Your task to perform on an android device: Open Google Chrome and click the shortcut for Amazon.com Image 0: 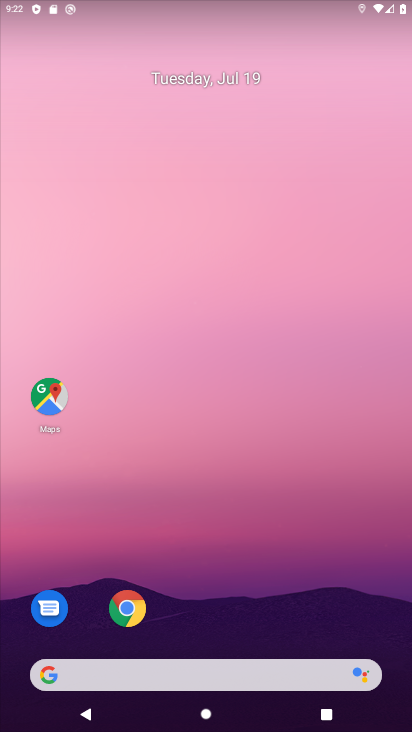
Step 0: drag from (238, 595) to (160, 46)
Your task to perform on an android device: Open Google Chrome and click the shortcut for Amazon.com Image 1: 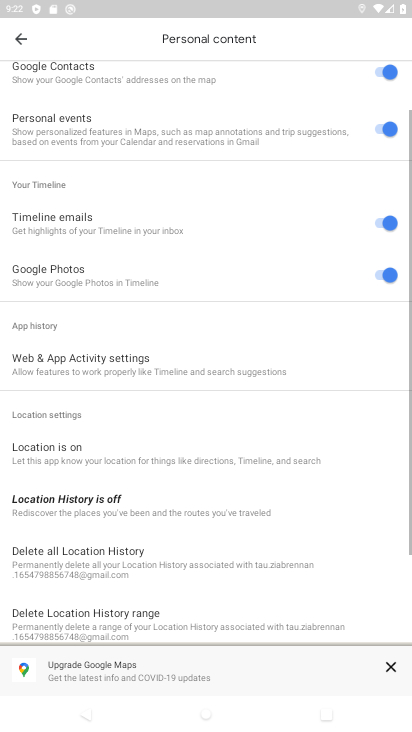
Step 1: press home button
Your task to perform on an android device: Open Google Chrome and click the shortcut for Amazon.com Image 2: 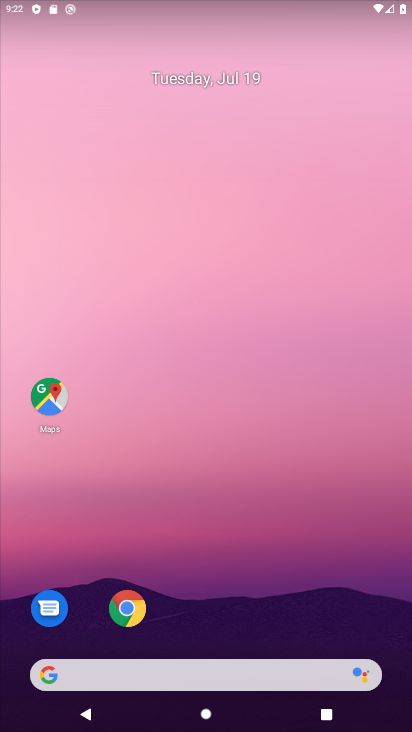
Step 2: click (128, 614)
Your task to perform on an android device: Open Google Chrome and click the shortcut for Amazon.com Image 3: 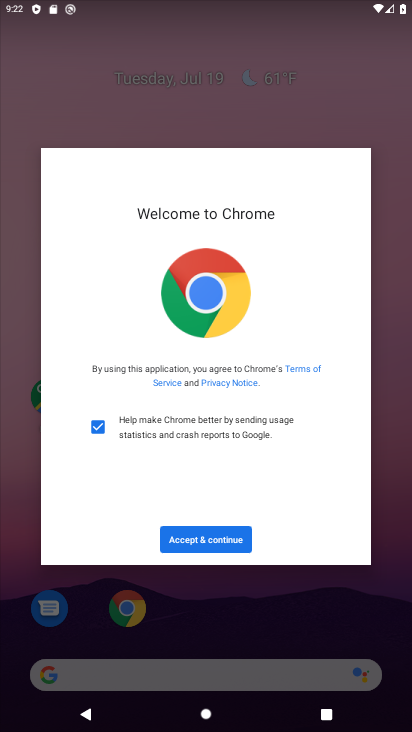
Step 3: click (197, 536)
Your task to perform on an android device: Open Google Chrome and click the shortcut for Amazon.com Image 4: 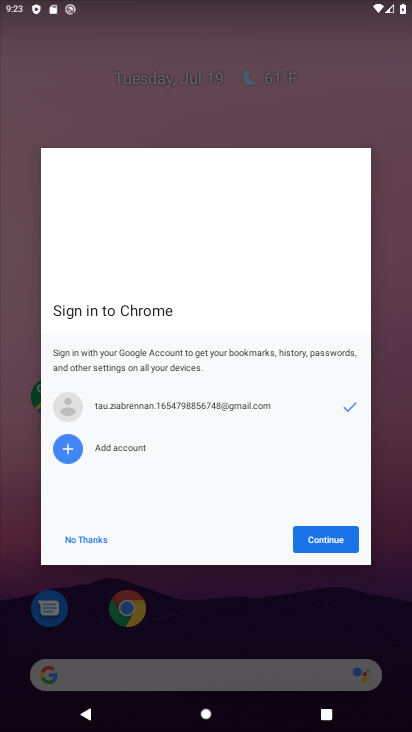
Step 4: click (312, 540)
Your task to perform on an android device: Open Google Chrome and click the shortcut for Amazon.com Image 5: 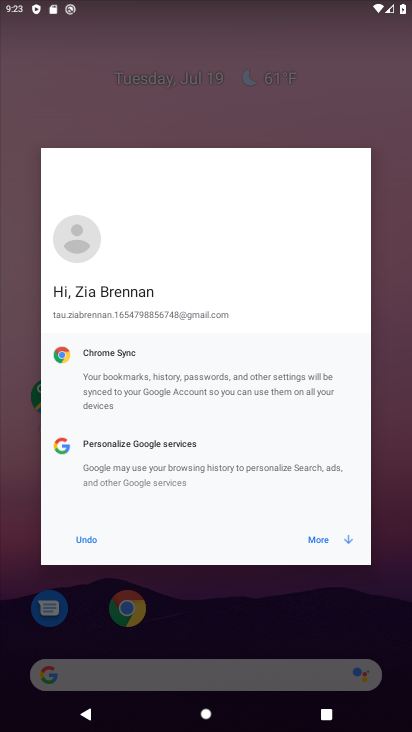
Step 5: click (348, 540)
Your task to perform on an android device: Open Google Chrome and click the shortcut for Amazon.com Image 6: 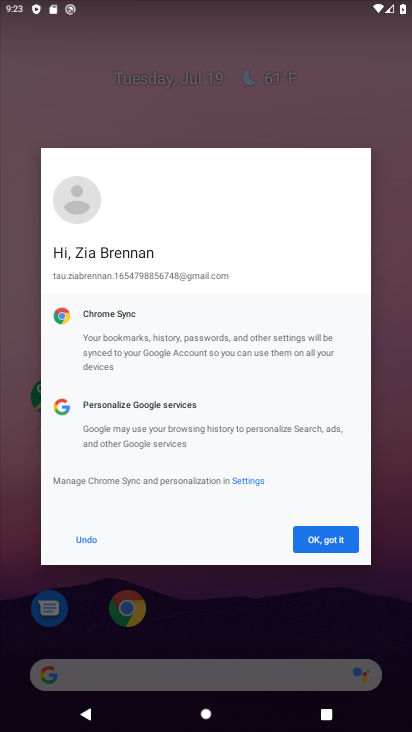
Step 6: click (334, 540)
Your task to perform on an android device: Open Google Chrome and click the shortcut for Amazon.com Image 7: 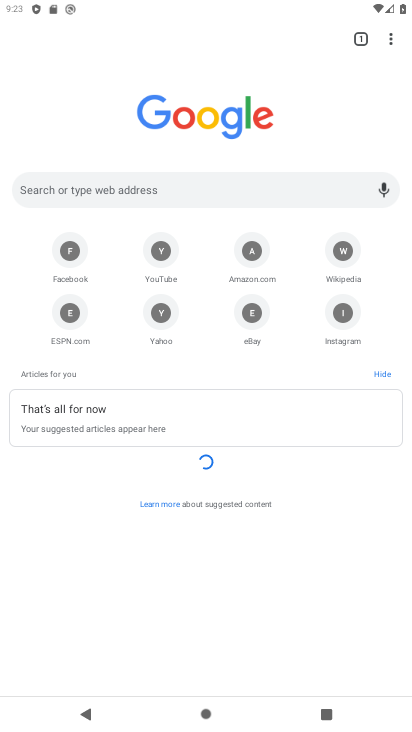
Step 7: click (393, 39)
Your task to perform on an android device: Open Google Chrome and click the shortcut for Amazon.com Image 8: 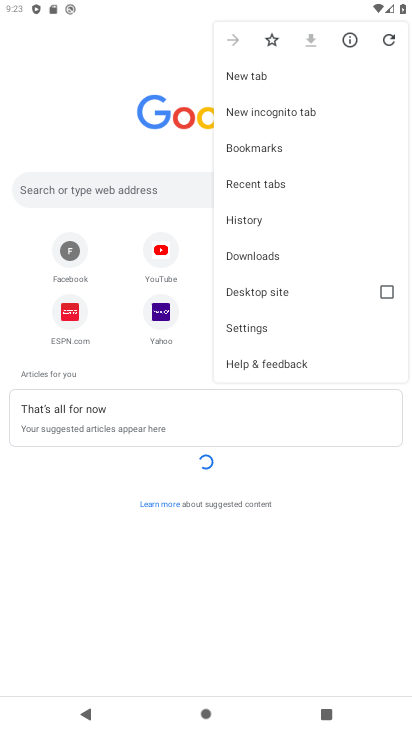
Step 8: click (118, 105)
Your task to perform on an android device: Open Google Chrome and click the shortcut for Amazon.com Image 9: 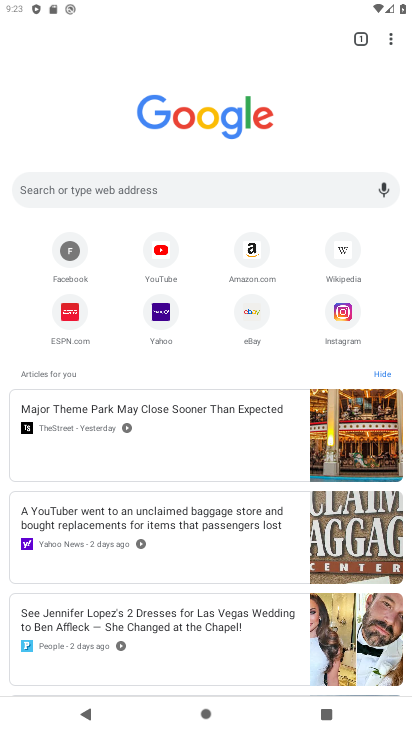
Step 9: click (256, 250)
Your task to perform on an android device: Open Google Chrome and click the shortcut for Amazon.com Image 10: 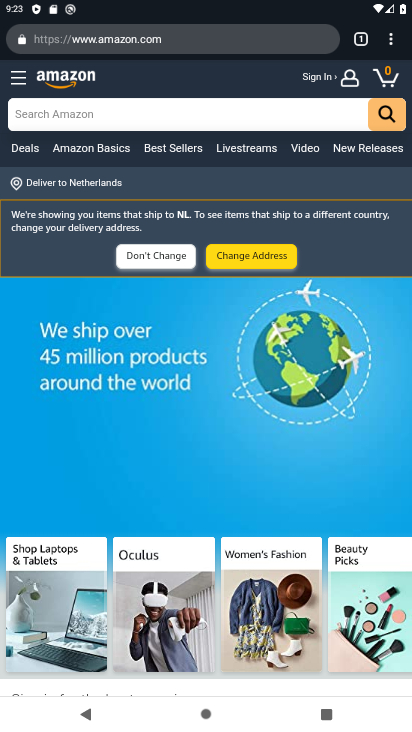
Step 10: task complete